Your task to perform on an android device: open the mobile data screen to see how much data has been used Image 0: 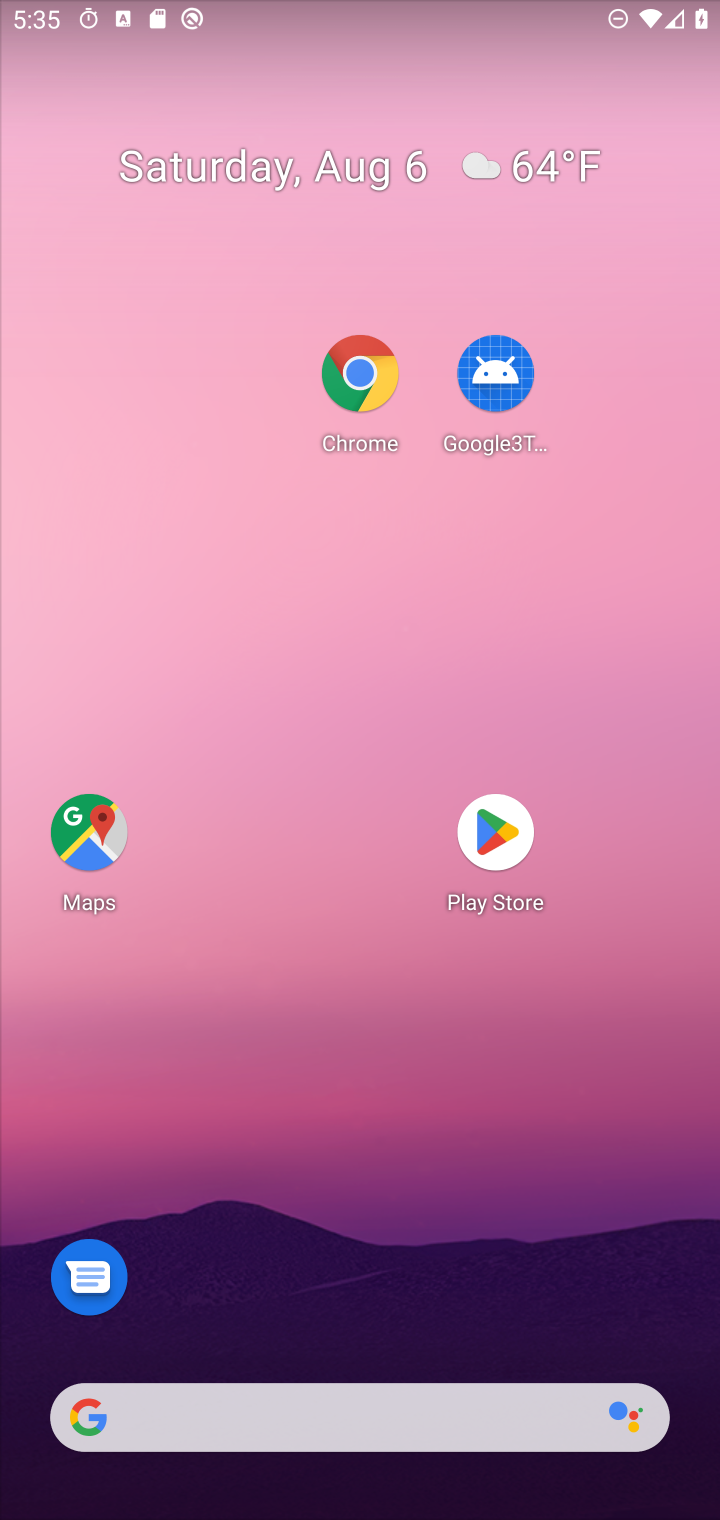
Step 0: drag from (448, 1377) to (288, 330)
Your task to perform on an android device: open the mobile data screen to see how much data has been used Image 1: 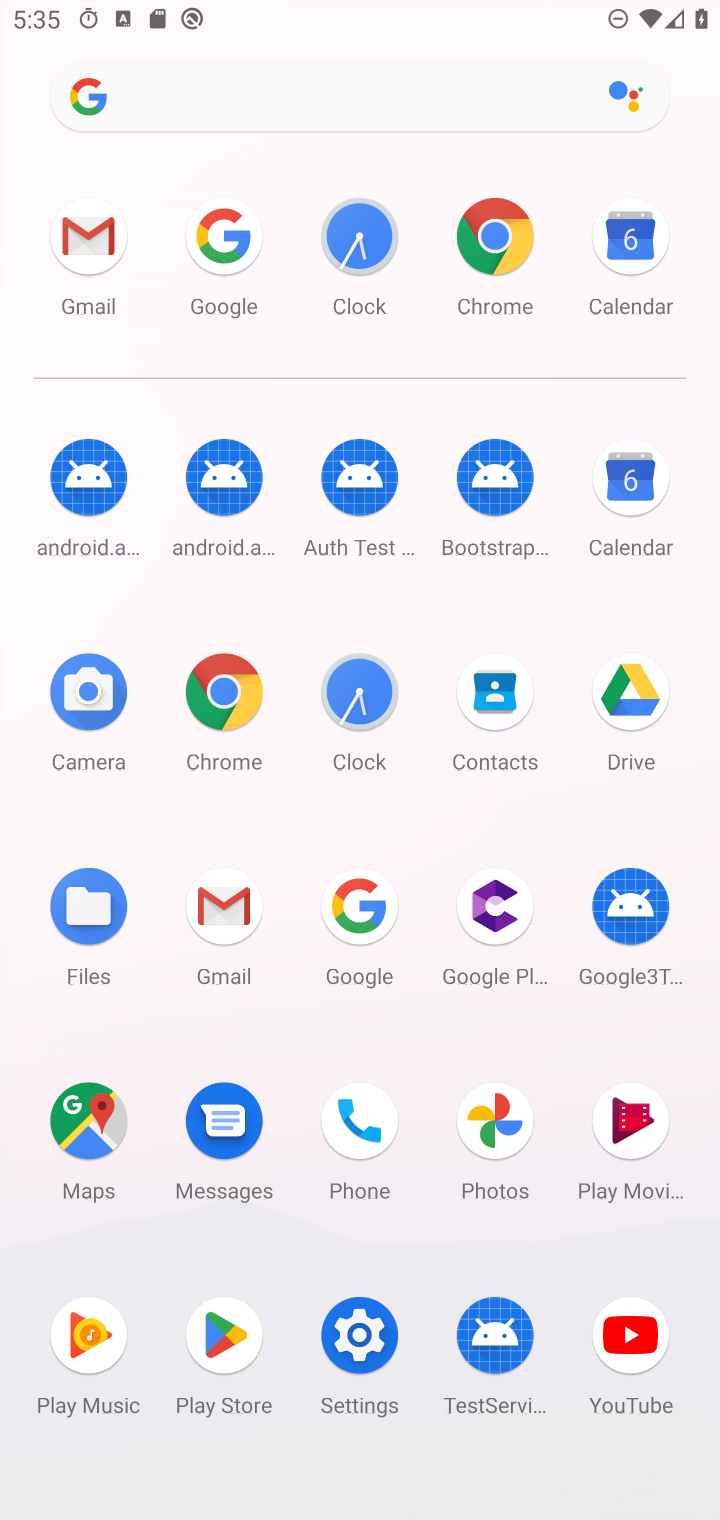
Step 1: click (365, 1304)
Your task to perform on an android device: open the mobile data screen to see how much data has been used Image 2: 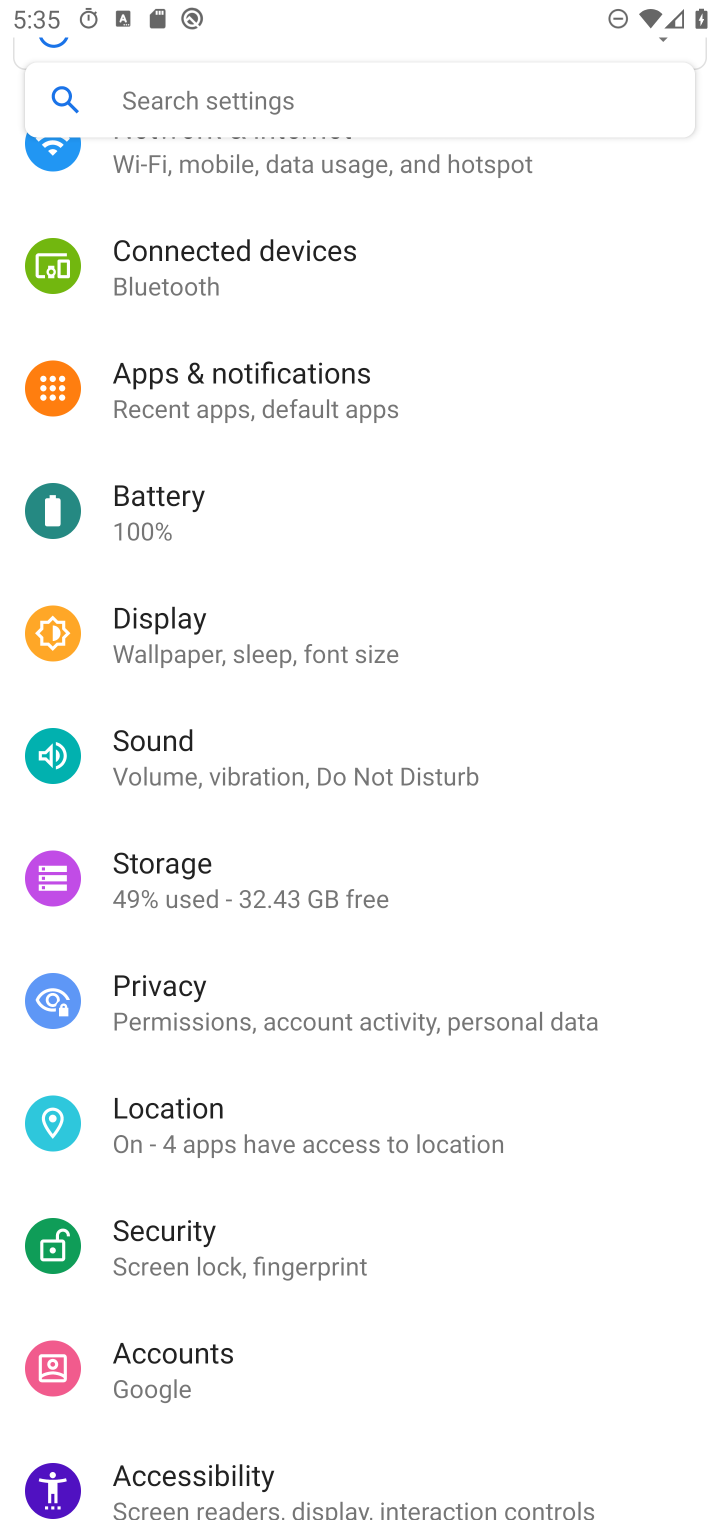
Step 2: drag from (623, 464) to (696, 1253)
Your task to perform on an android device: open the mobile data screen to see how much data has been used Image 3: 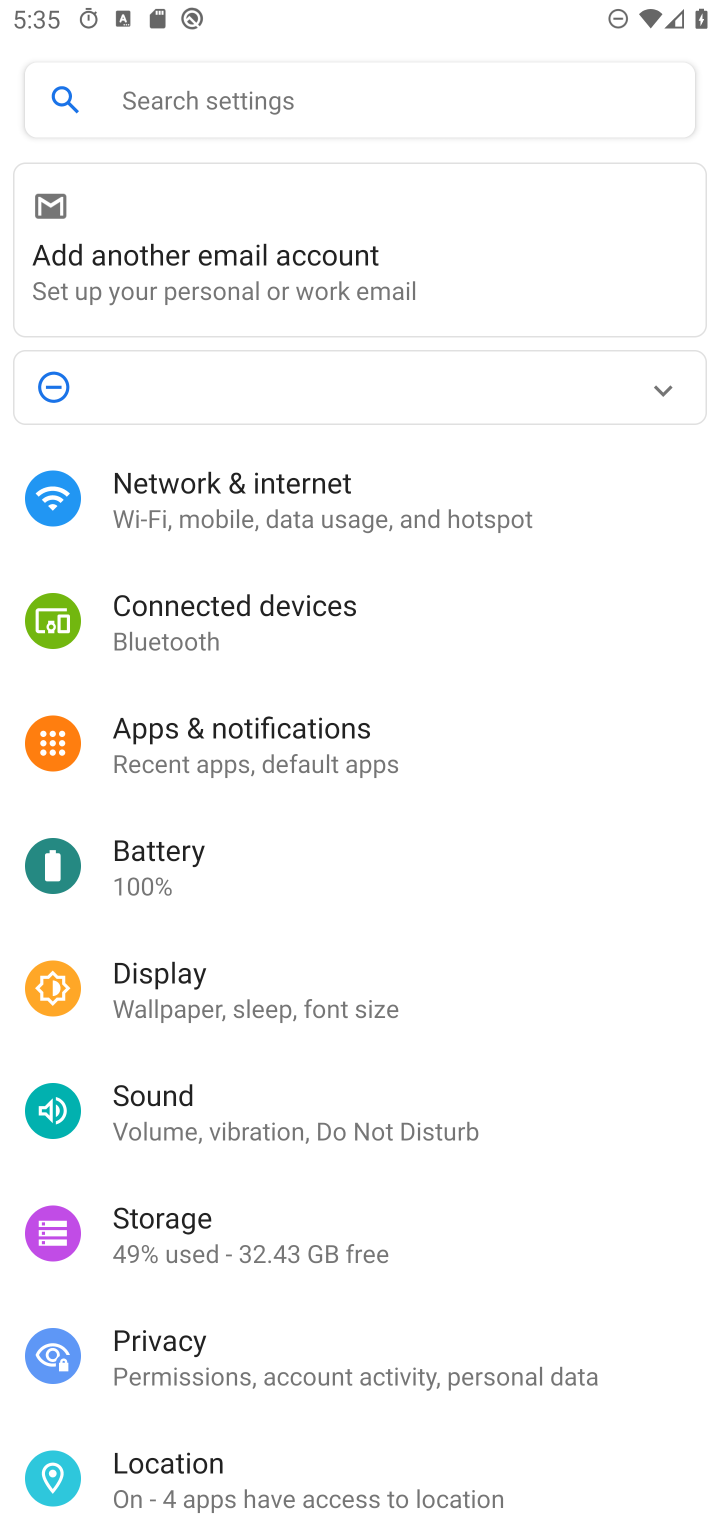
Step 3: click (411, 513)
Your task to perform on an android device: open the mobile data screen to see how much data has been used Image 4: 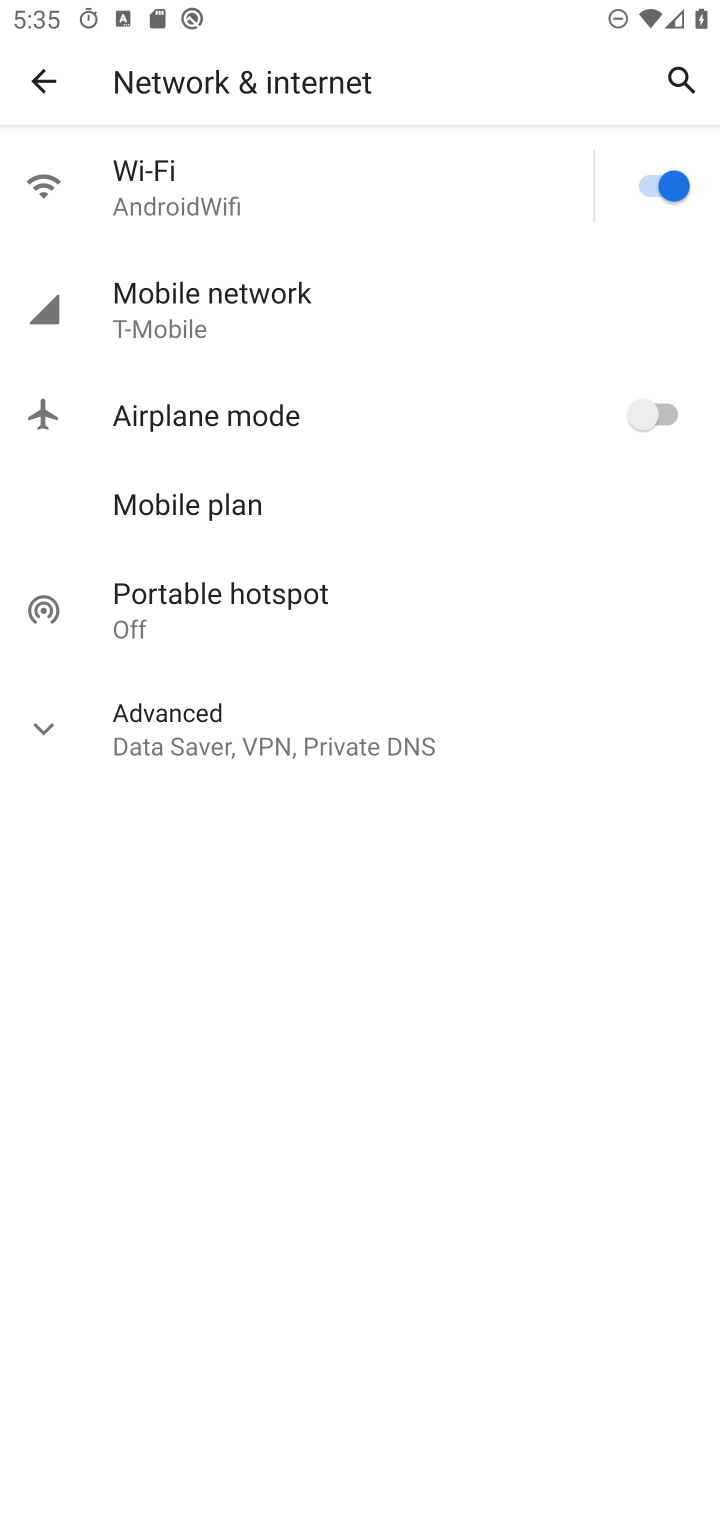
Step 4: click (308, 297)
Your task to perform on an android device: open the mobile data screen to see how much data has been used Image 5: 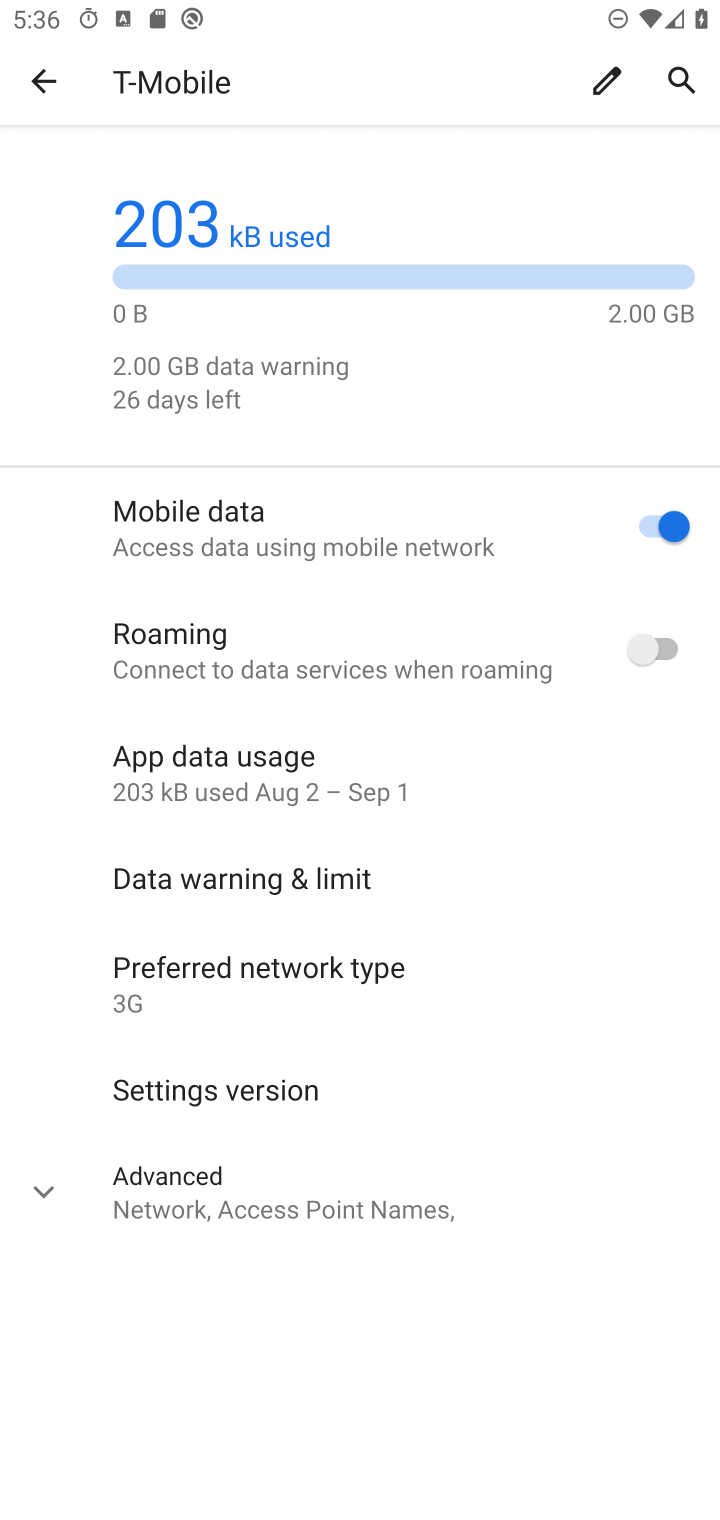
Step 5: task complete